Your task to perform on an android device: Open privacy settings Image 0: 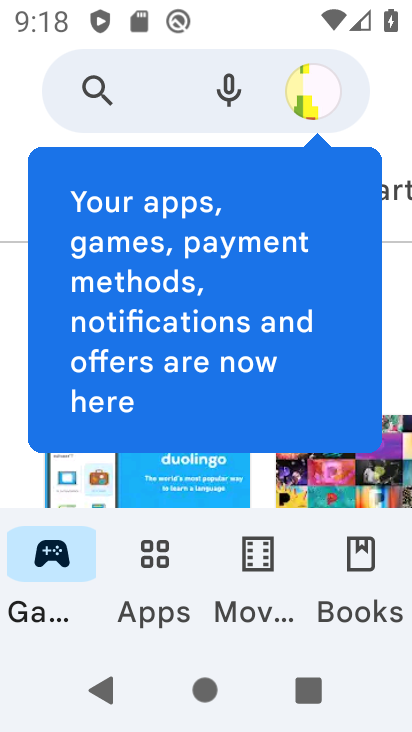
Step 0: press home button
Your task to perform on an android device: Open privacy settings Image 1: 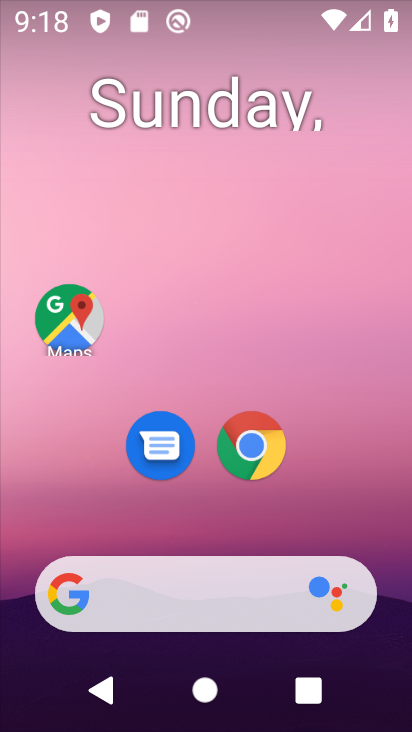
Step 1: drag from (167, 463) to (216, 196)
Your task to perform on an android device: Open privacy settings Image 2: 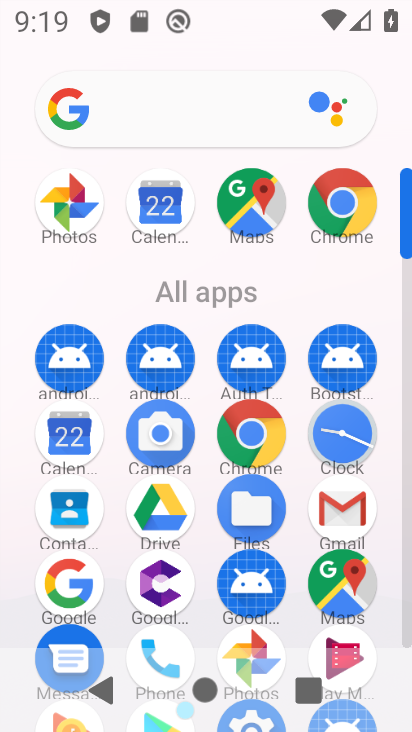
Step 2: drag from (298, 636) to (359, 360)
Your task to perform on an android device: Open privacy settings Image 3: 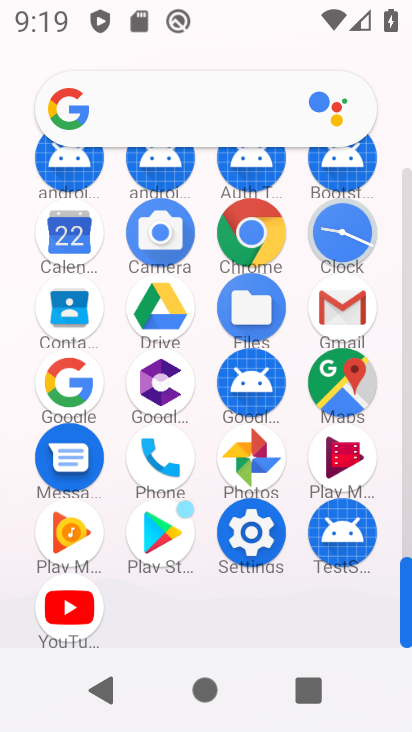
Step 3: click (251, 536)
Your task to perform on an android device: Open privacy settings Image 4: 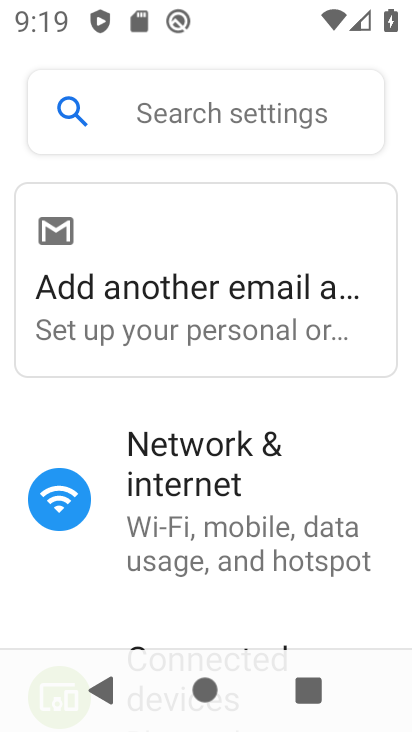
Step 4: drag from (289, 488) to (316, 144)
Your task to perform on an android device: Open privacy settings Image 5: 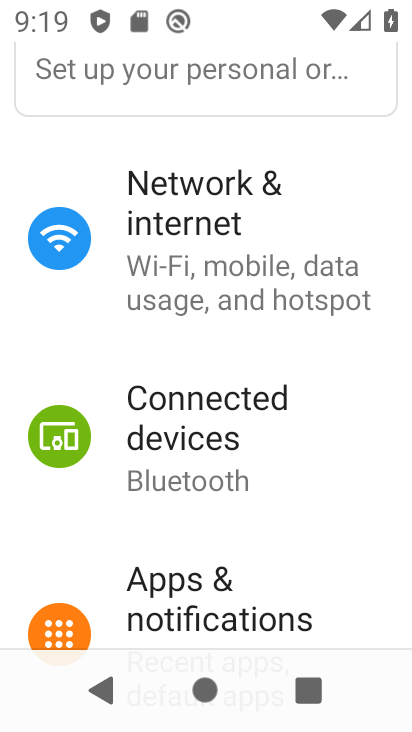
Step 5: drag from (278, 577) to (286, 76)
Your task to perform on an android device: Open privacy settings Image 6: 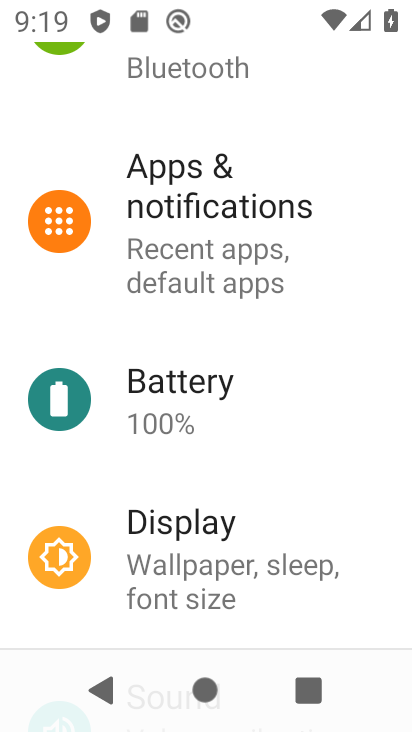
Step 6: drag from (255, 500) to (289, 142)
Your task to perform on an android device: Open privacy settings Image 7: 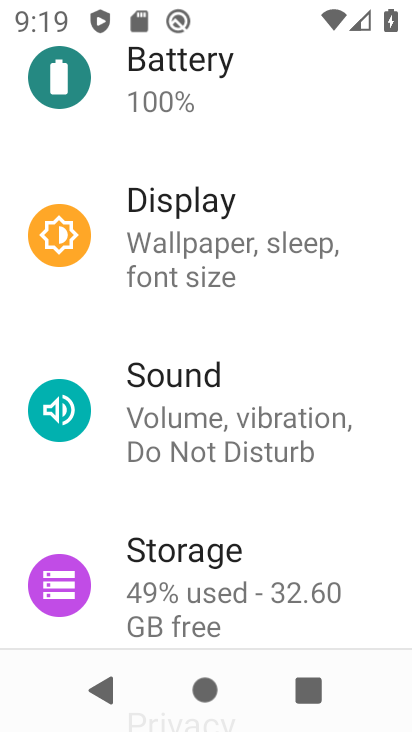
Step 7: drag from (206, 553) to (260, 243)
Your task to perform on an android device: Open privacy settings Image 8: 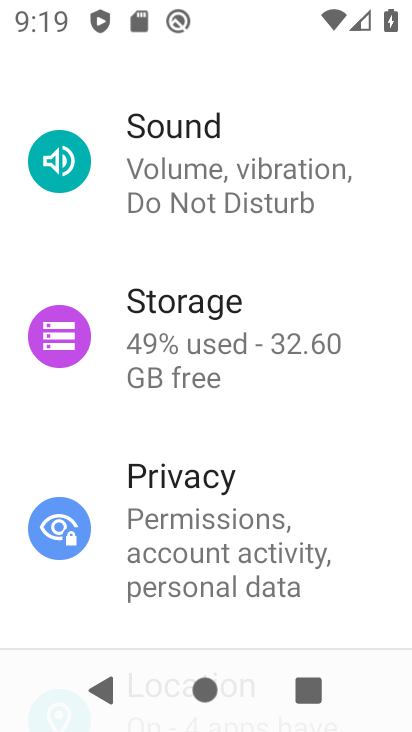
Step 8: click (198, 514)
Your task to perform on an android device: Open privacy settings Image 9: 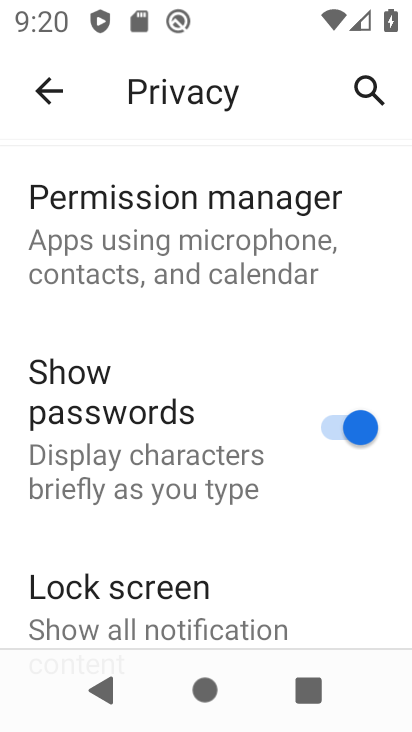
Step 9: task complete